Your task to perform on an android device: Open Google Chrome and open the bookmarks view Image 0: 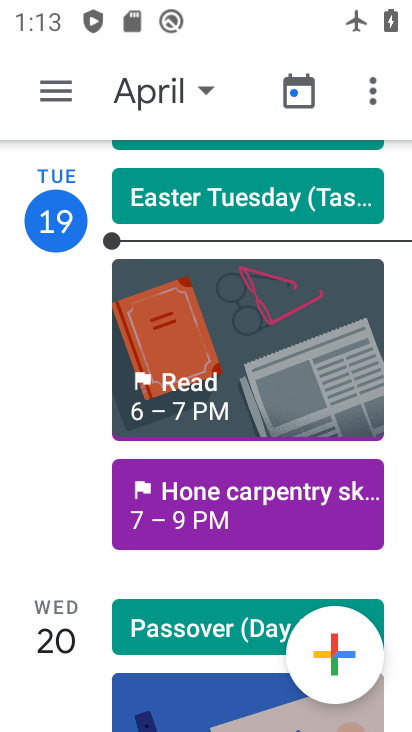
Step 0: press home button
Your task to perform on an android device: Open Google Chrome and open the bookmarks view Image 1: 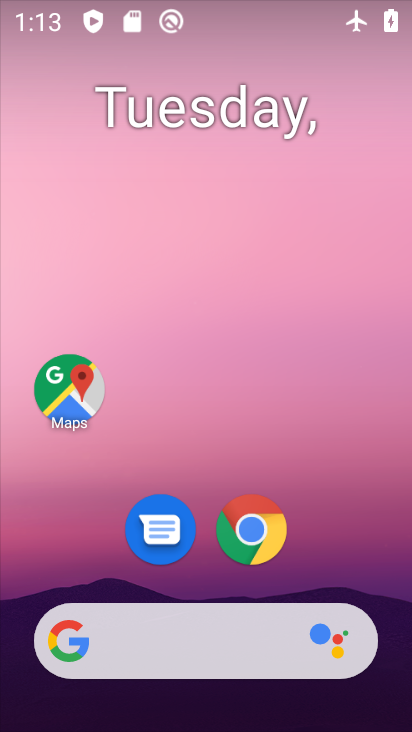
Step 1: drag from (378, 560) to (305, 108)
Your task to perform on an android device: Open Google Chrome and open the bookmarks view Image 2: 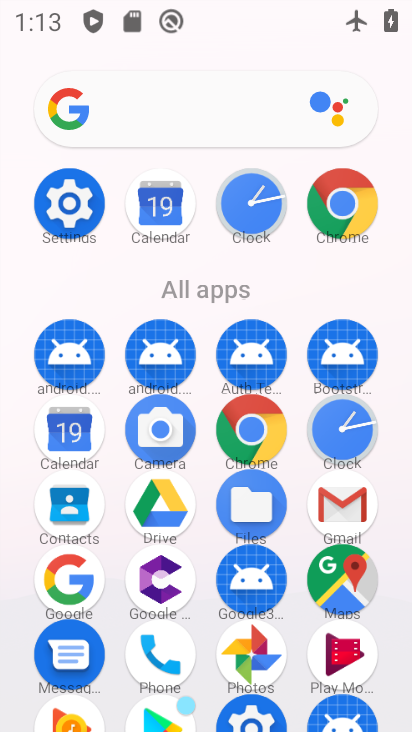
Step 2: click (369, 217)
Your task to perform on an android device: Open Google Chrome and open the bookmarks view Image 3: 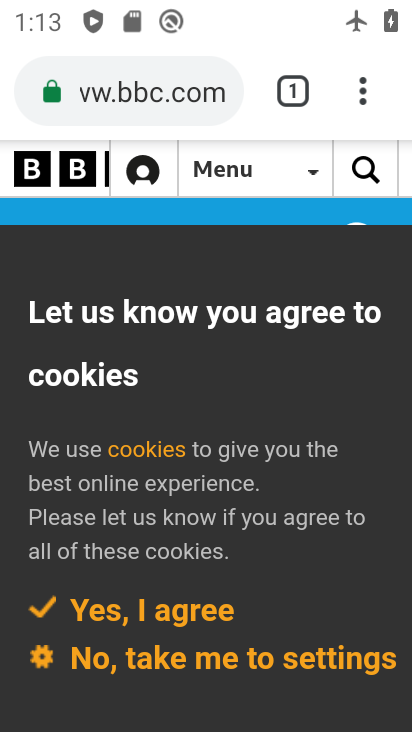
Step 3: click (362, 89)
Your task to perform on an android device: Open Google Chrome and open the bookmarks view Image 4: 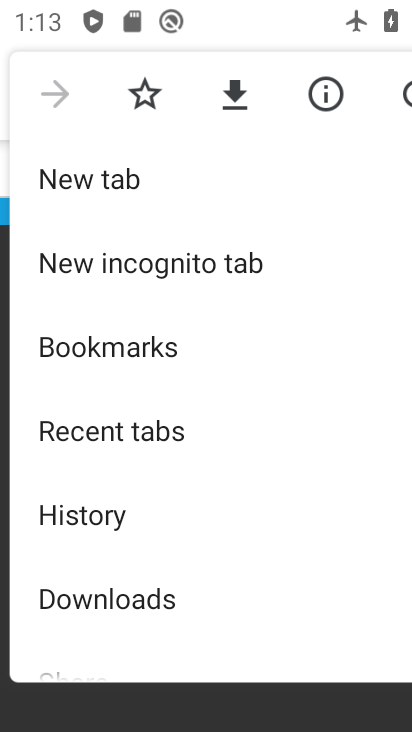
Step 4: click (240, 351)
Your task to perform on an android device: Open Google Chrome and open the bookmarks view Image 5: 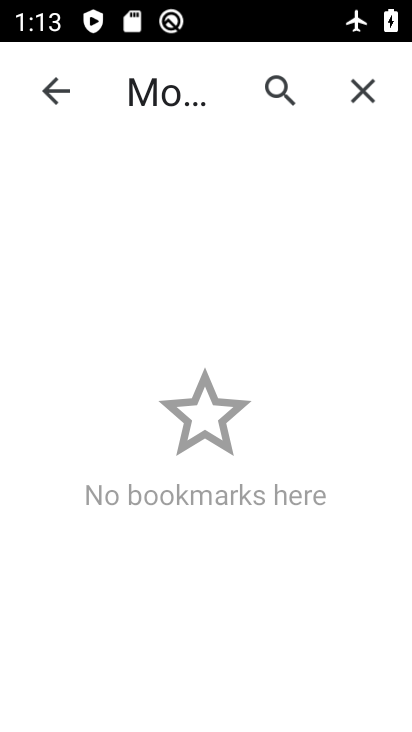
Step 5: task complete